Your task to perform on an android device: turn off wifi Image 0: 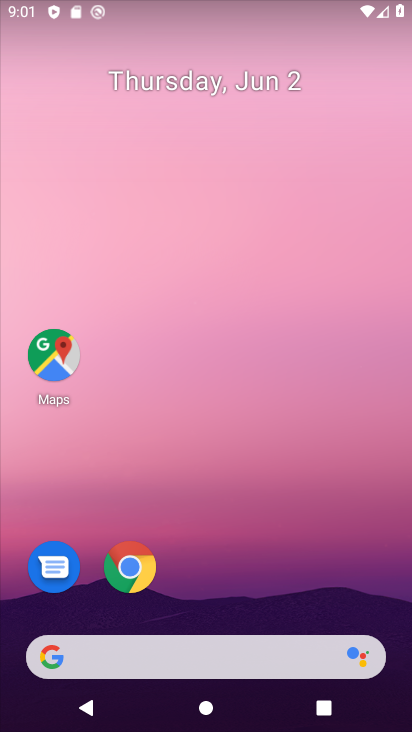
Step 0: drag from (291, 597) to (318, 211)
Your task to perform on an android device: turn off wifi Image 1: 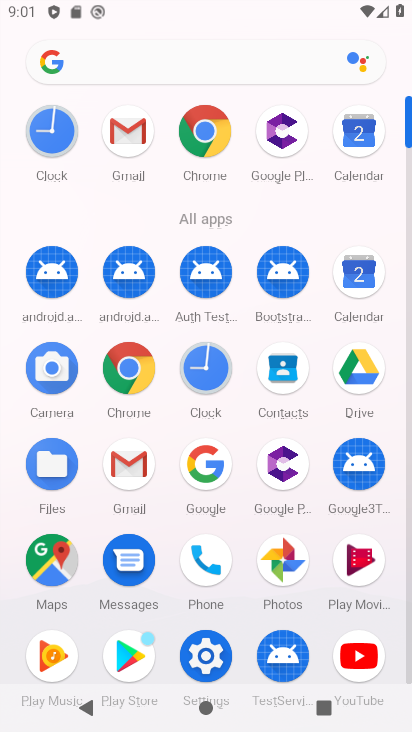
Step 1: click (205, 652)
Your task to perform on an android device: turn off wifi Image 2: 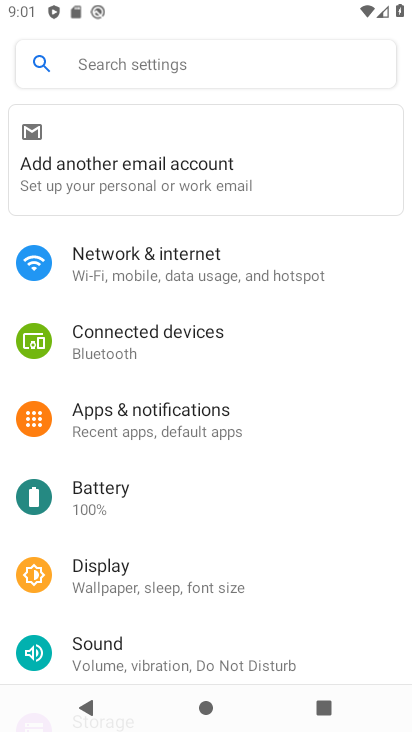
Step 2: click (248, 255)
Your task to perform on an android device: turn off wifi Image 3: 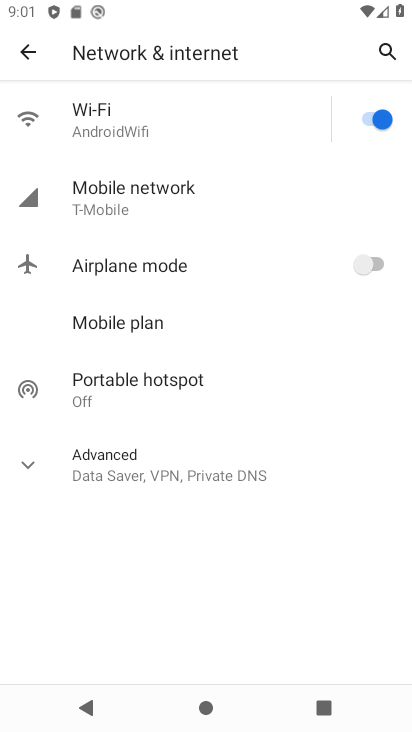
Step 3: click (368, 113)
Your task to perform on an android device: turn off wifi Image 4: 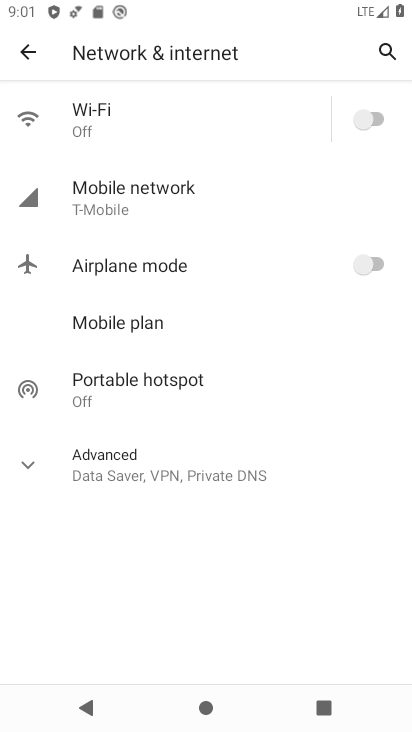
Step 4: task complete